Your task to perform on an android device: Go to notification settings Image 0: 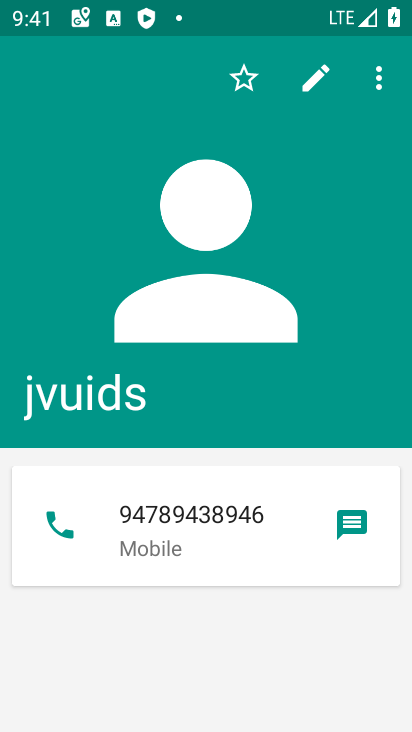
Step 0: press home button
Your task to perform on an android device: Go to notification settings Image 1: 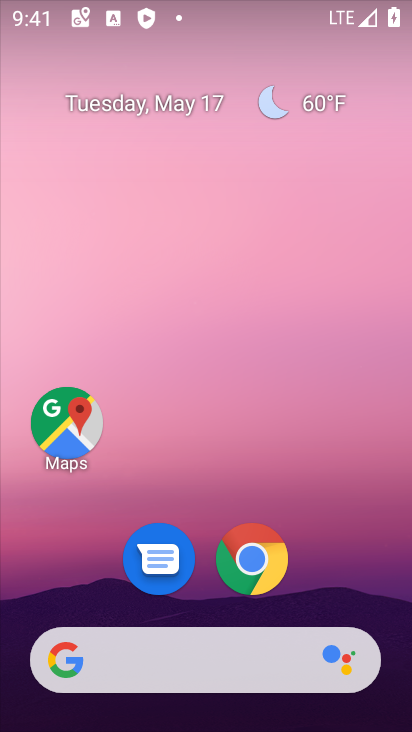
Step 1: drag from (198, 600) to (233, 156)
Your task to perform on an android device: Go to notification settings Image 2: 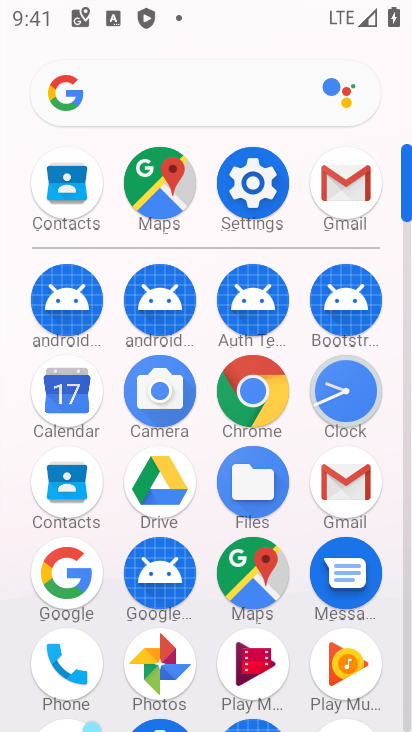
Step 2: click (257, 182)
Your task to perform on an android device: Go to notification settings Image 3: 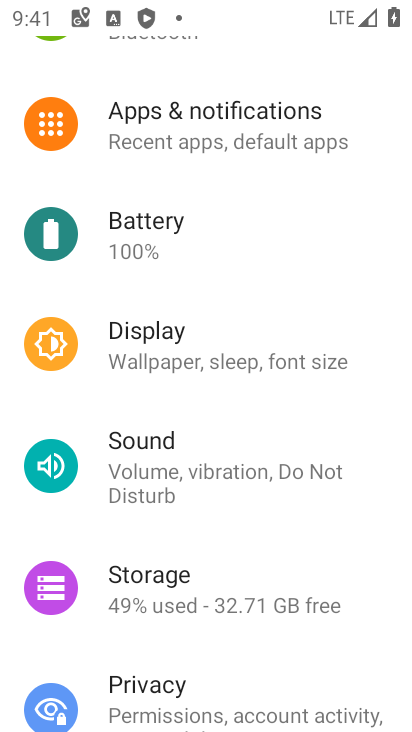
Step 3: click (244, 143)
Your task to perform on an android device: Go to notification settings Image 4: 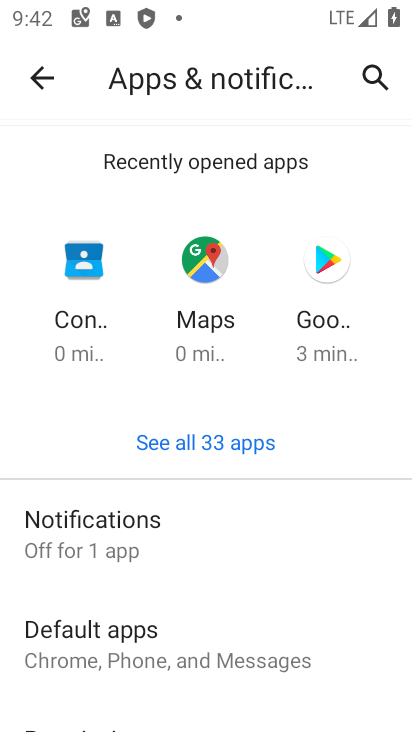
Step 4: click (198, 514)
Your task to perform on an android device: Go to notification settings Image 5: 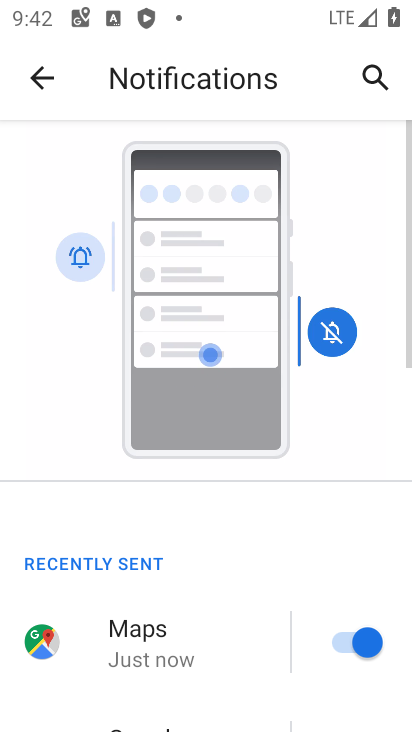
Step 5: drag from (201, 662) to (221, 293)
Your task to perform on an android device: Go to notification settings Image 6: 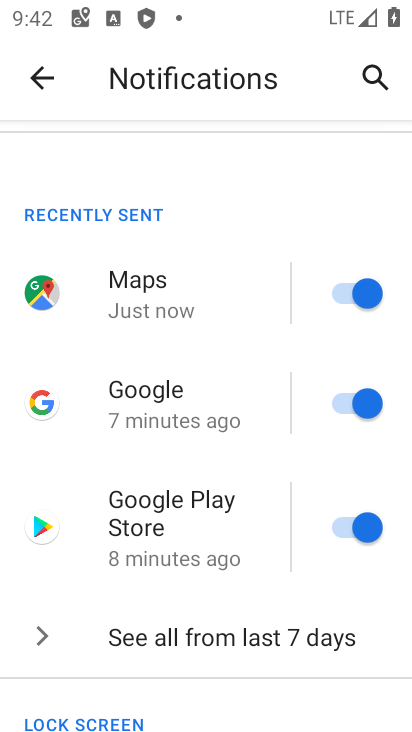
Step 6: drag from (205, 575) to (212, 211)
Your task to perform on an android device: Go to notification settings Image 7: 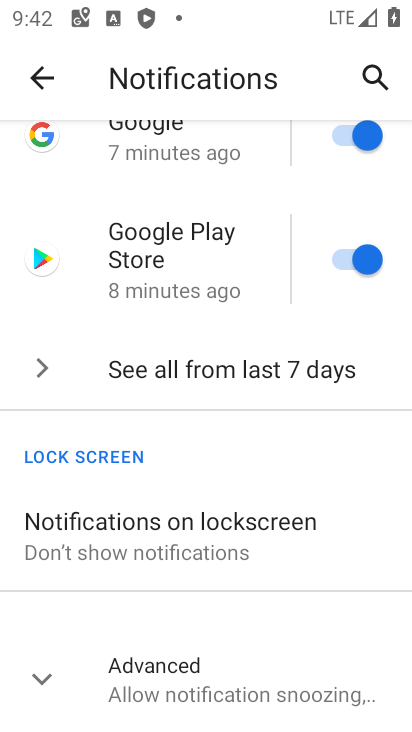
Step 7: drag from (175, 642) to (200, 403)
Your task to perform on an android device: Go to notification settings Image 8: 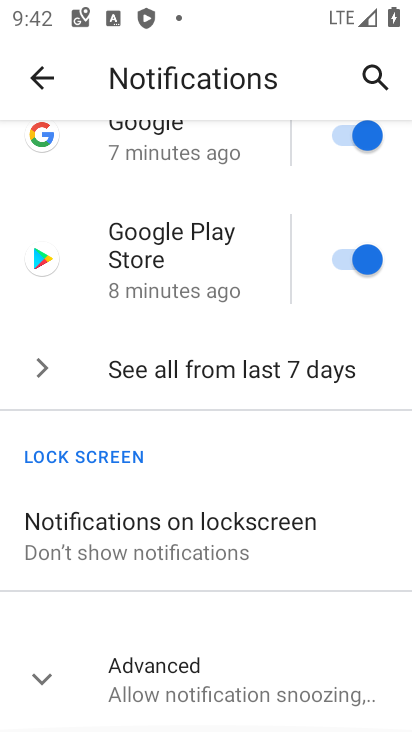
Step 8: click (177, 675)
Your task to perform on an android device: Go to notification settings Image 9: 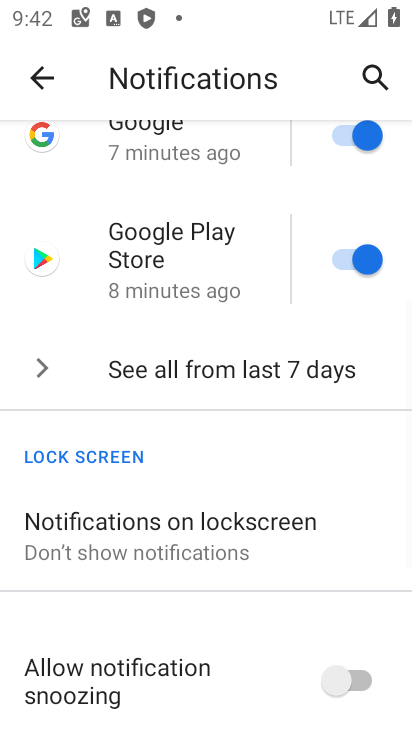
Step 9: task complete